Your task to perform on an android device: open chrome and create a bookmark for the current page Image 0: 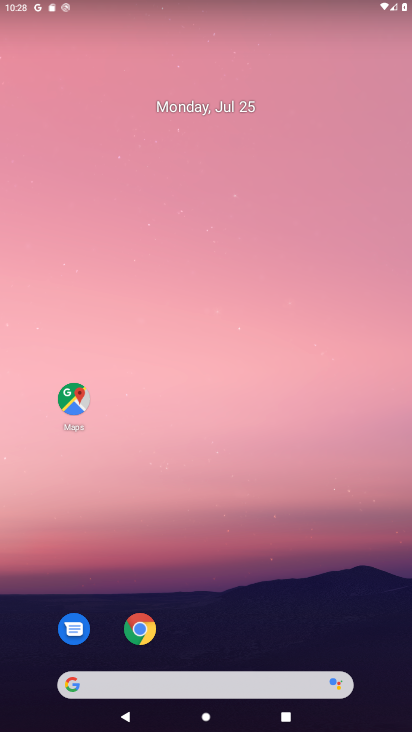
Step 0: click (142, 630)
Your task to perform on an android device: open chrome and create a bookmark for the current page Image 1: 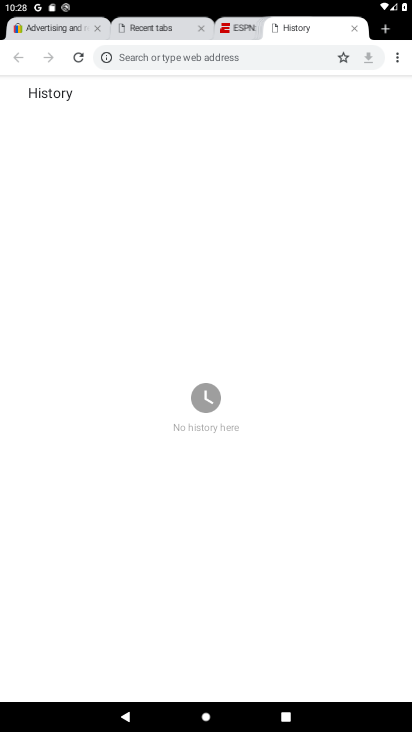
Step 1: click (341, 60)
Your task to perform on an android device: open chrome and create a bookmark for the current page Image 2: 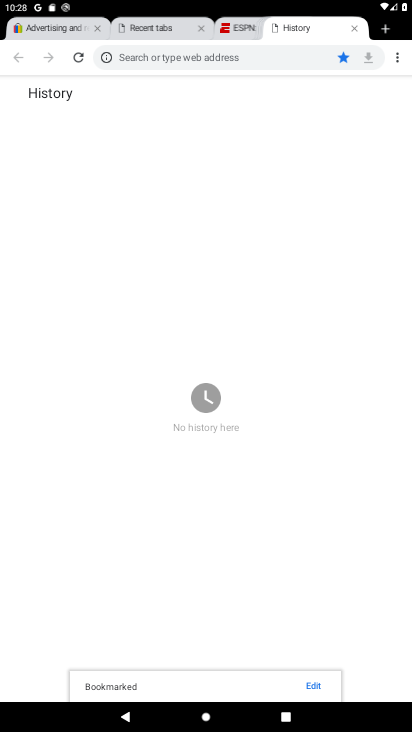
Step 2: task complete